Your task to perform on an android device: toggle javascript in the chrome app Image 0: 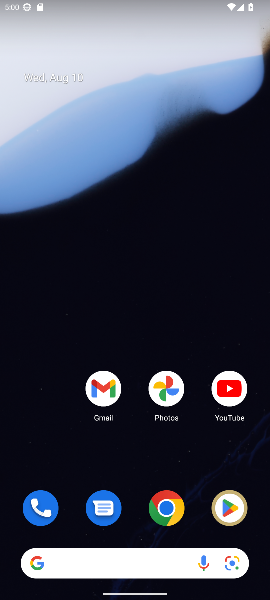
Step 0: press home button
Your task to perform on an android device: toggle javascript in the chrome app Image 1: 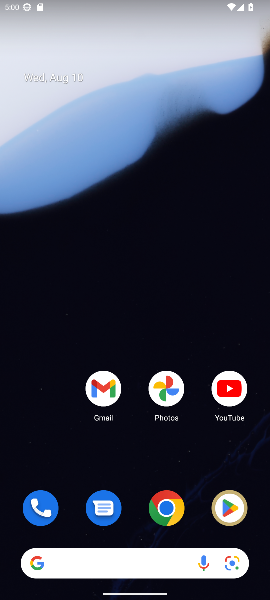
Step 1: click (168, 512)
Your task to perform on an android device: toggle javascript in the chrome app Image 2: 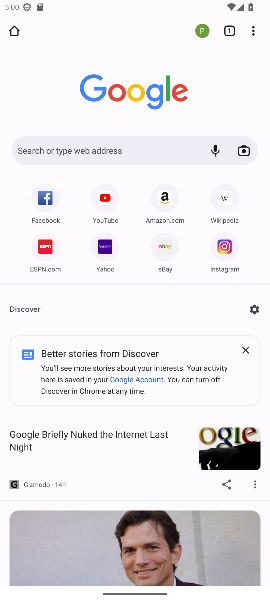
Step 2: drag from (255, 31) to (169, 280)
Your task to perform on an android device: toggle javascript in the chrome app Image 3: 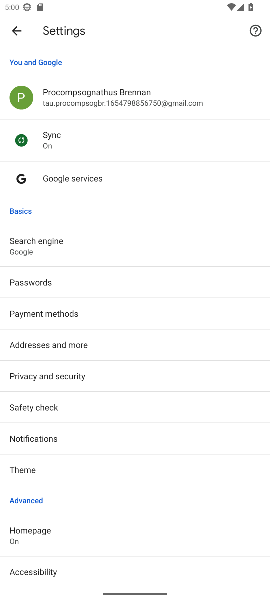
Step 3: drag from (175, 495) to (170, 161)
Your task to perform on an android device: toggle javascript in the chrome app Image 4: 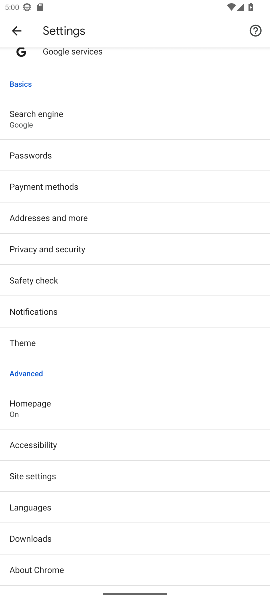
Step 4: click (27, 473)
Your task to perform on an android device: toggle javascript in the chrome app Image 5: 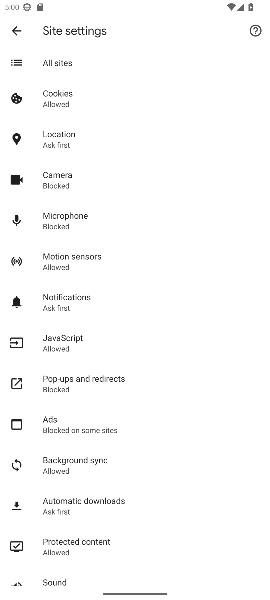
Step 5: click (68, 345)
Your task to perform on an android device: toggle javascript in the chrome app Image 6: 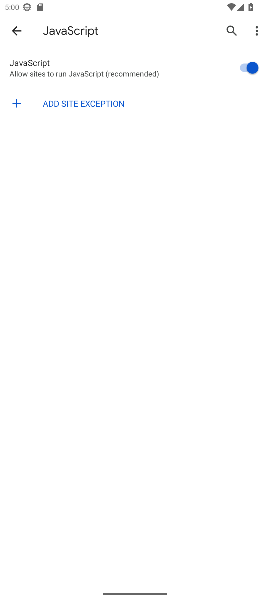
Step 6: click (252, 67)
Your task to perform on an android device: toggle javascript in the chrome app Image 7: 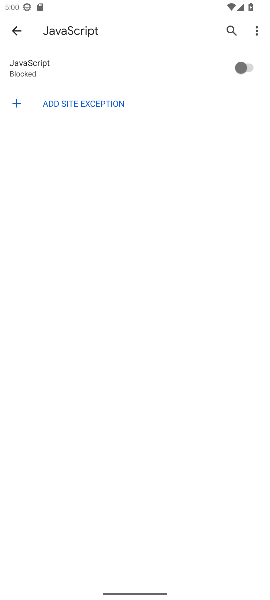
Step 7: task complete